Your task to perform on an android device: Go to location settings Image 0: 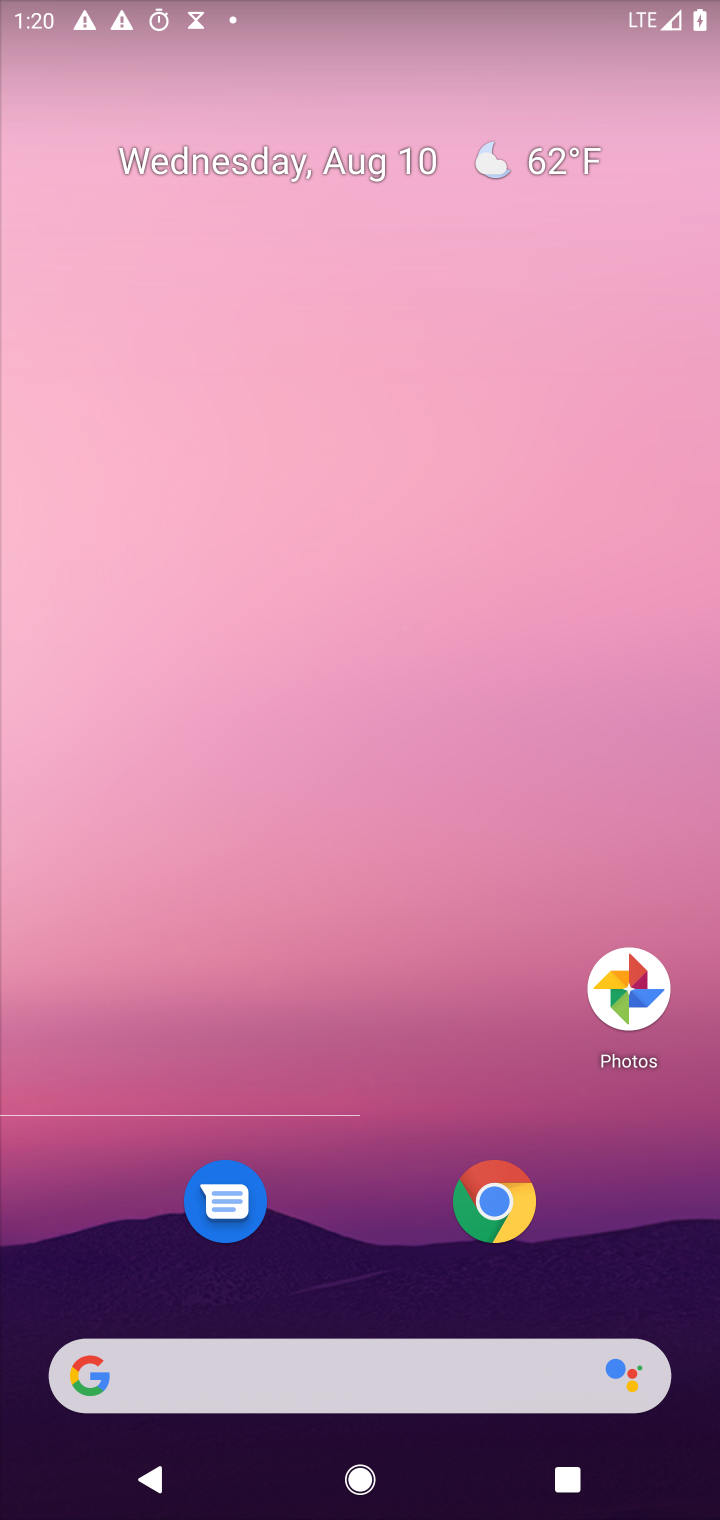
Step 0: press home button
Your task to perform on an android device: Go to location settings Image 1: 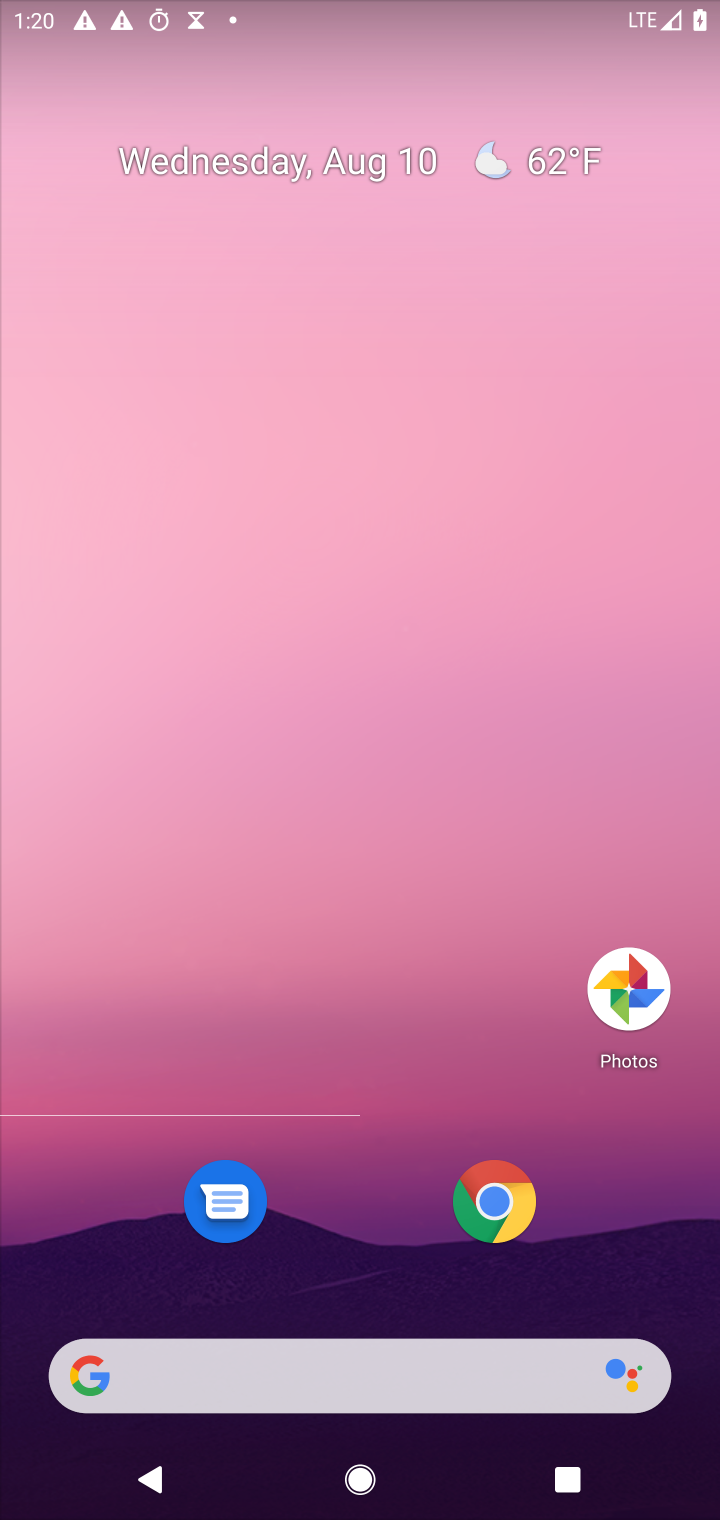
Step 1: drag from (398, 1078) to (365, 169)
Your task to perform on an android device: Go to location settings Image 2: 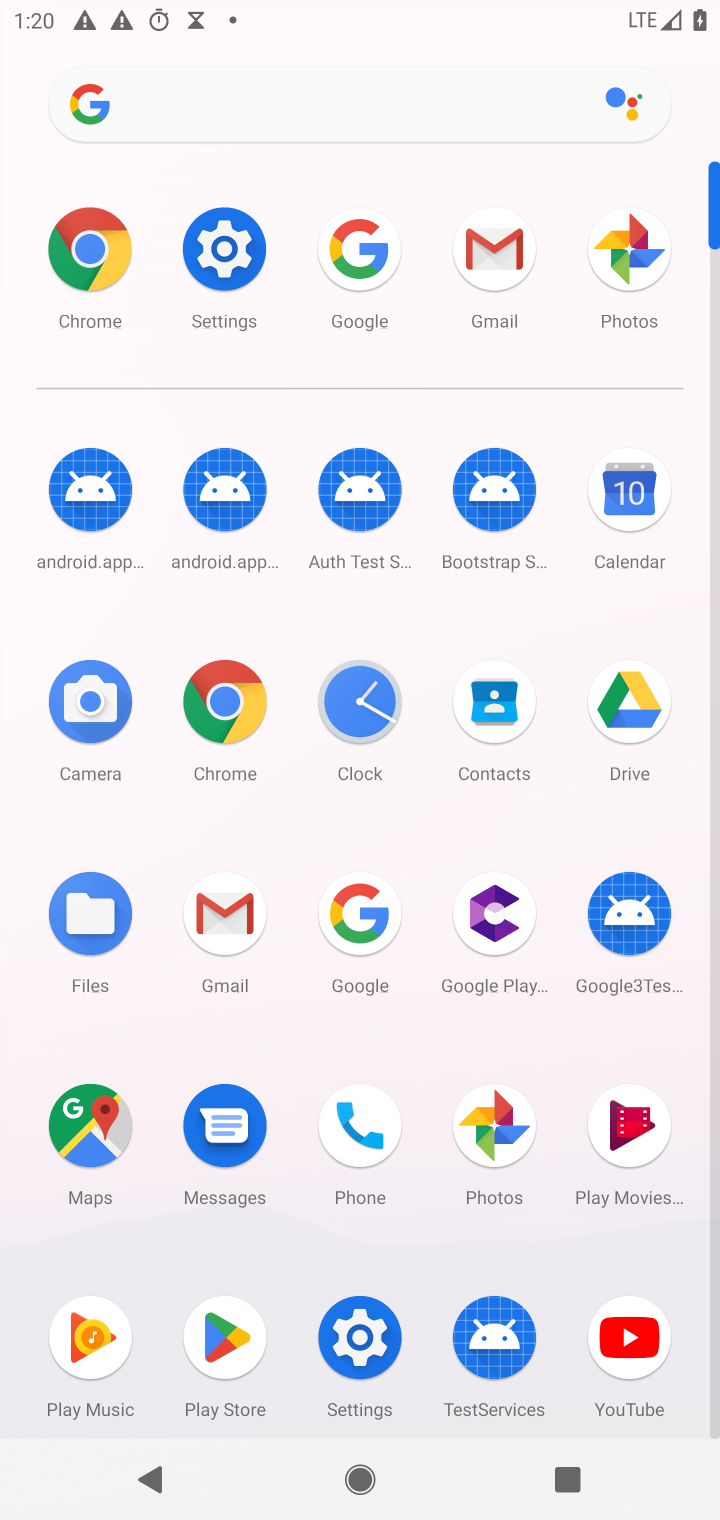
Step 2: click (350, 1348)
Your task to perform on an android device: Go to location settings Image 3: 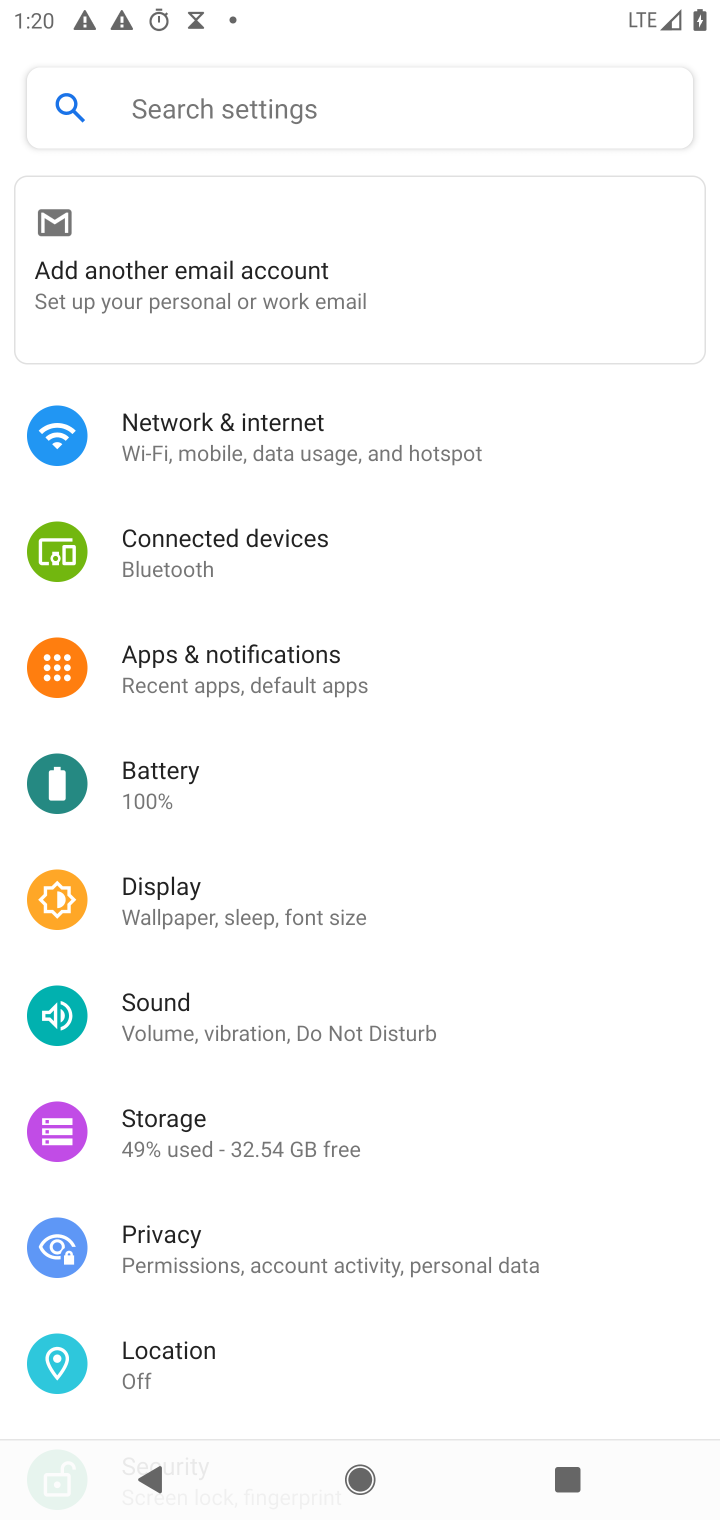
Step 3: click (163, 1357)
Your task to perform on an android device: Go to location settings Image 4: 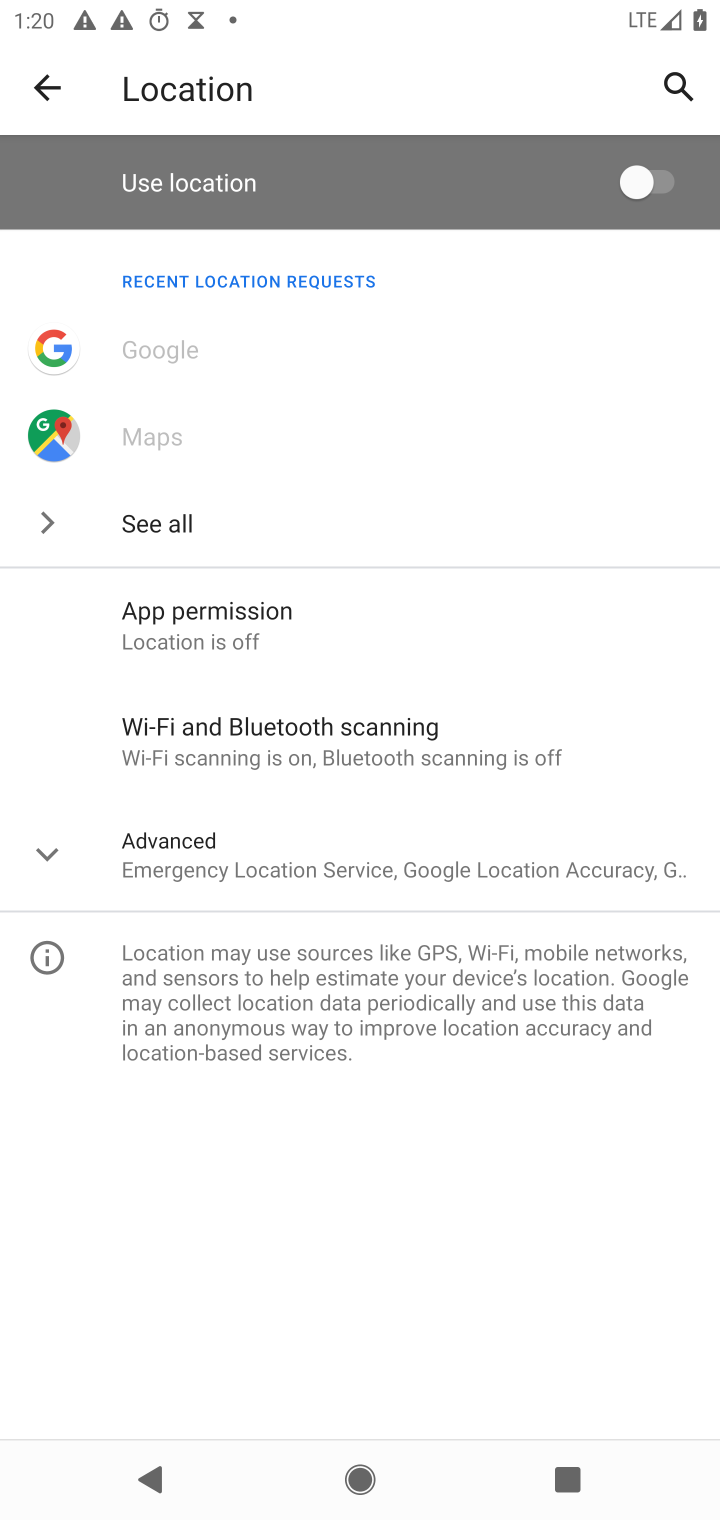
Step 4: task complete